Your task to perform on an android device: clear history in the chrome app Image 0: 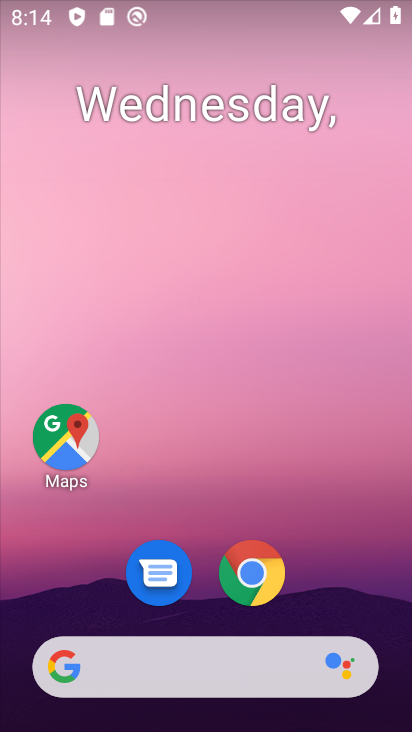
Step 0: click (264, 584)
Your task to perform on an android device: clear history in the chrome app Image 1: 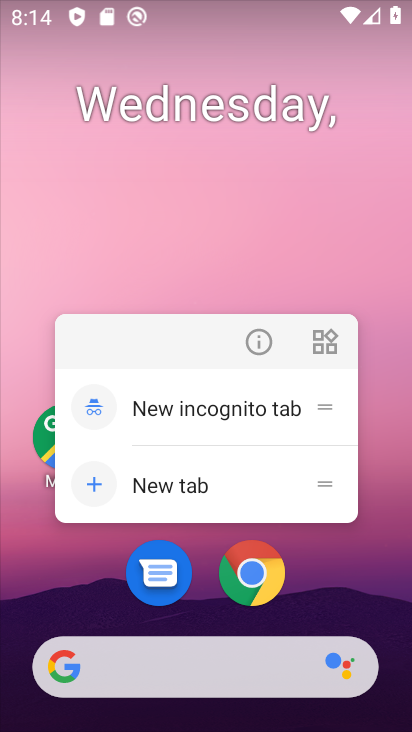
Step 1: click (254, 584)
Your task to perform on an android device: clear history in the chrome app Image 2: 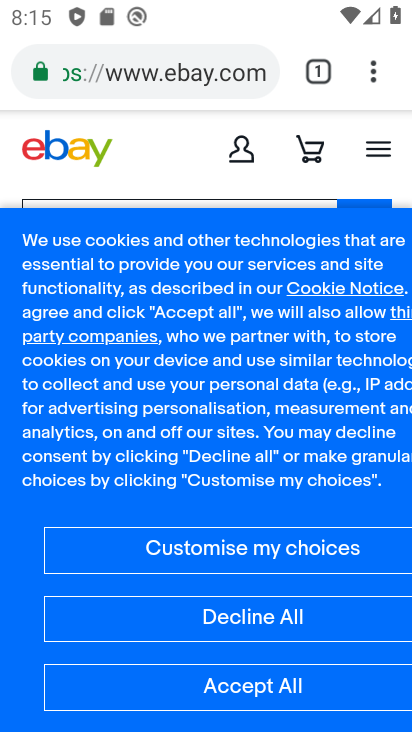
Step 2: click (373, 79)
Your task to perform on an android device: clear history in the chrome app Image 3: 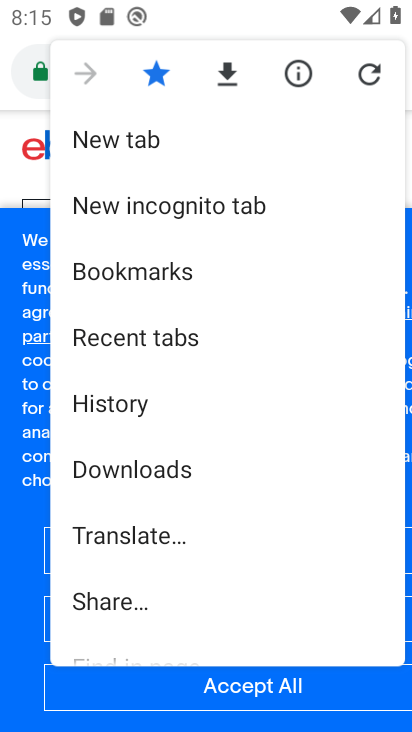
Step 3: drag from (192, 519) to (160, 322)
Your task to perform on an android device: clear history in the chrome app Image 4: 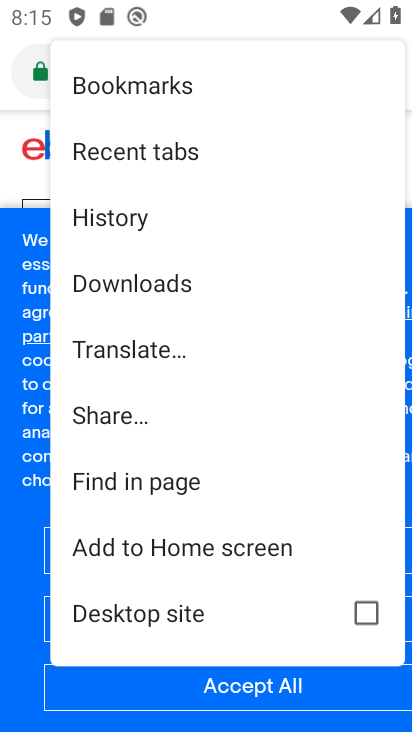
Step 4: click (147, 230)
Your task to perform on an android device: clear history in the chrome app Image 5: 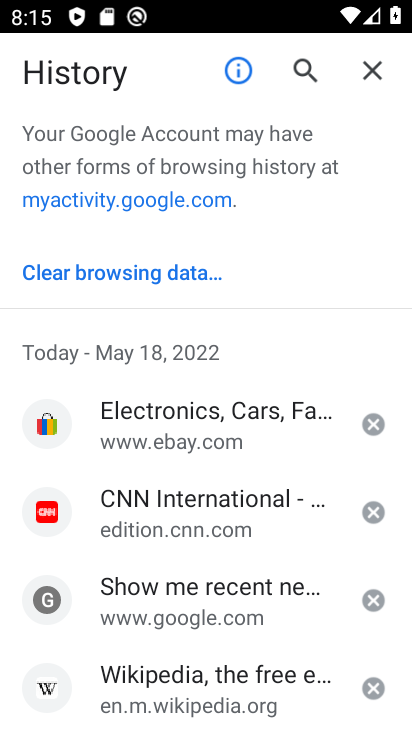
Step 5: click (138, 283)
Your task to perform on an android device: clear history in the chrome app Image 6: 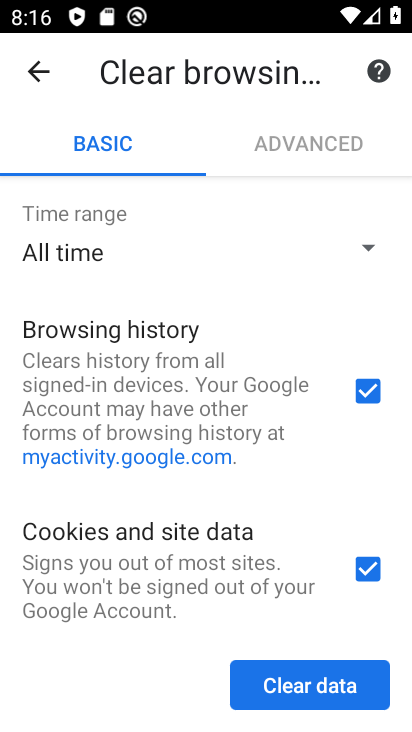
Step 6: click (369, 570)
Your task to perform on an android device: clear history in the chrome app Image 7: 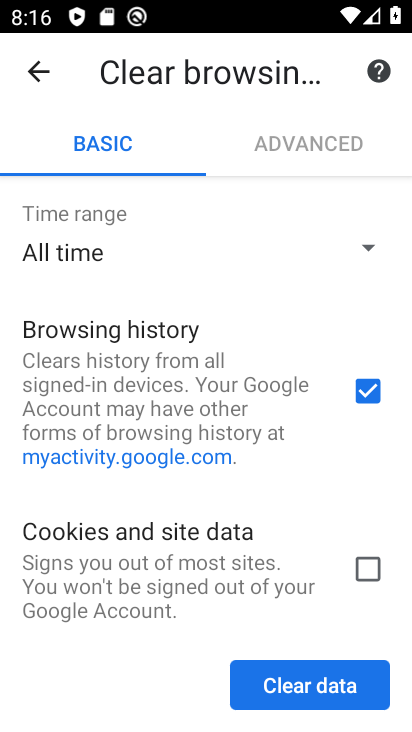
Step 7: click (338, 686)
Your task to perform on an android device: clear history in the chrome app Image 8: 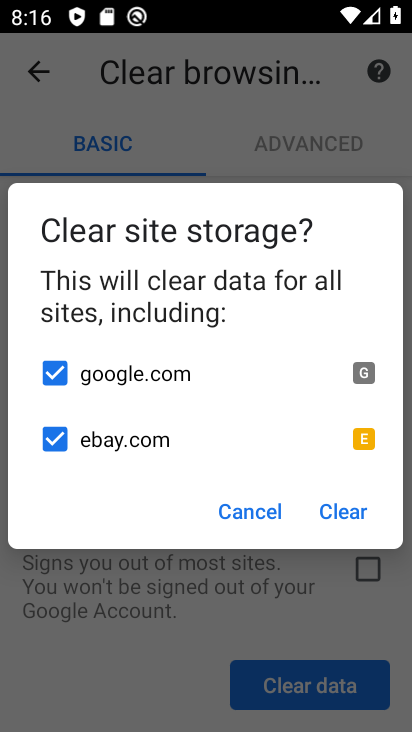
Step 8: click (358, 505)
Your task to perform on an android device: clear history in the chrome app Image 9: 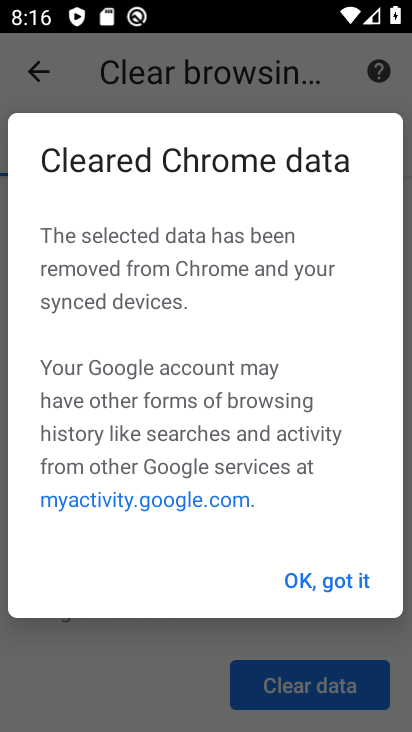
Step 9: click (320, 576)
Your task to perform on an android device: clear history in the chrome app Image 10: 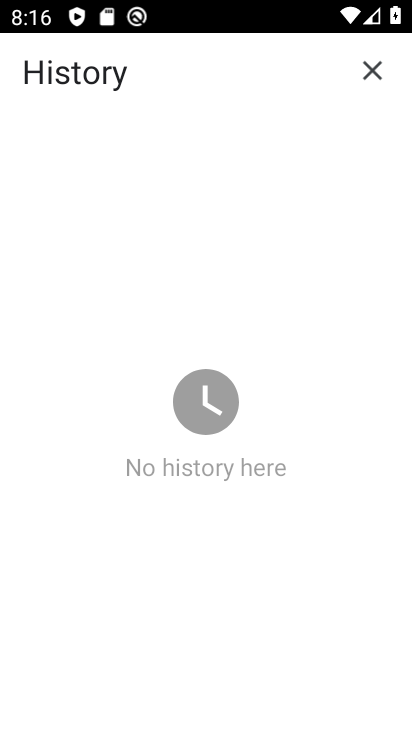
Step 10: task complete